Your task to perform on an android device: allow cookies in the chrome app Image 0: 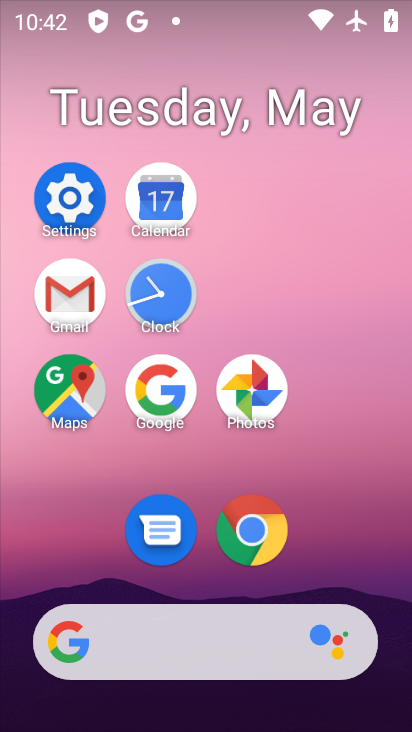
Step 0: click (260, 520)
Your task to perform on an android device: allow cookies in the chrome app Image 1: 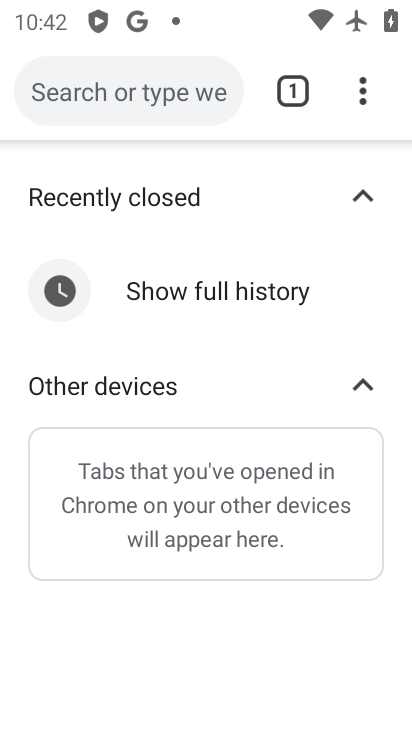
Step 1: click (379, 94)
Your task to perform on an android device: allow cookies in the chrome app Image 2: 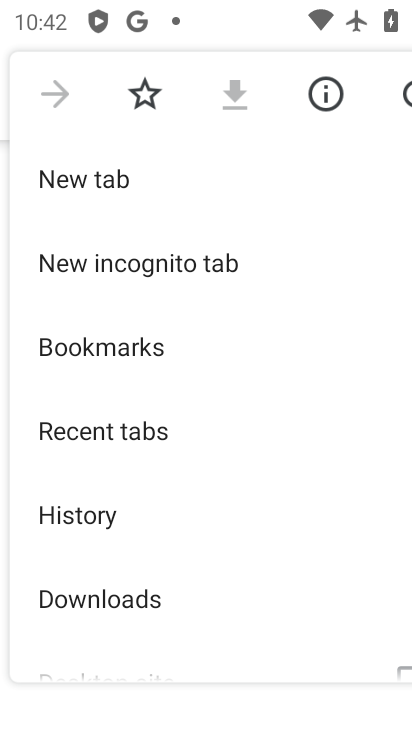
Step 2: drag from (263, 482) to (301, 125)
Your task to perform on an android device: allow cookies in the chrome app Image 3: 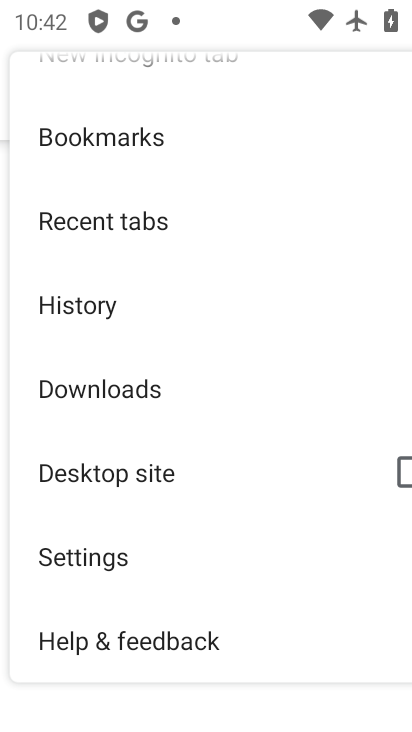
Step 3: click (122, 542)
Your task to perform on an android device: allow cookies in the chrome app Image 4: 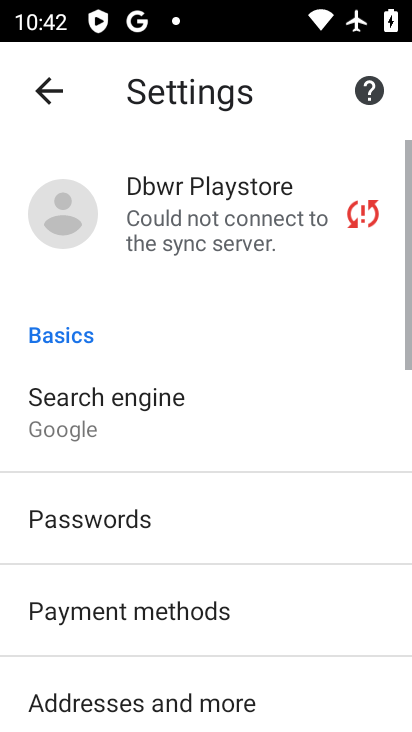
Step 4: drag from (122, 542) to (205, 175)
Your task to perform on an android device: allow cookies in the chrome app Image 5: 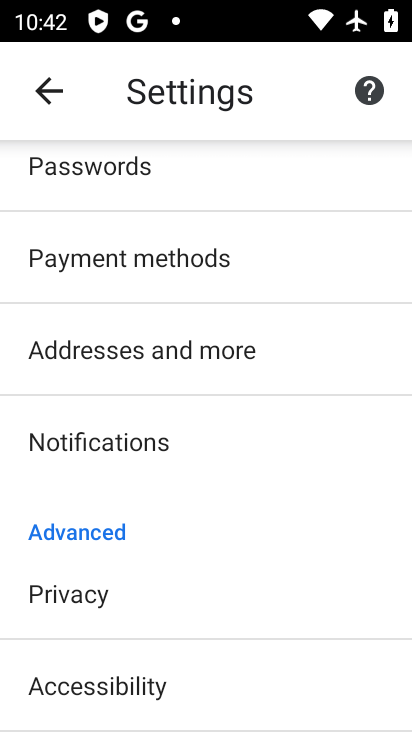
Step 5: drag from (136, 471) to (186, 192)
Your task to perform on an android device: allow cookies in the chrome app Image 6: 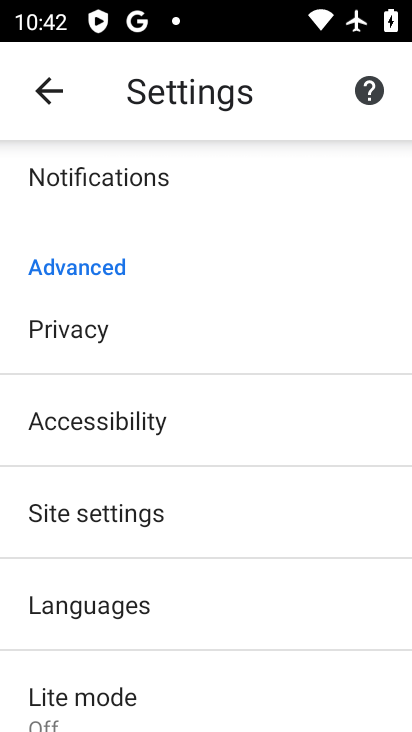
Step 6: click (213, 509)
Your task to perform on an android device: allow cookies in the chrome app Image 7: 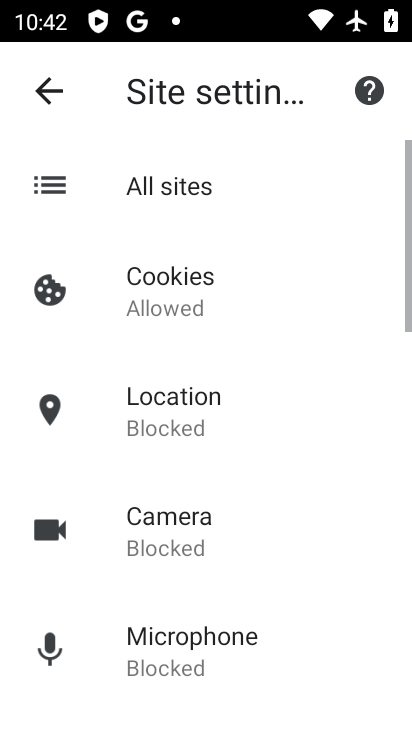
Step 7: click (199, 331)
Your task to perform on an android device: allow cookies in the chrome app Image 8: 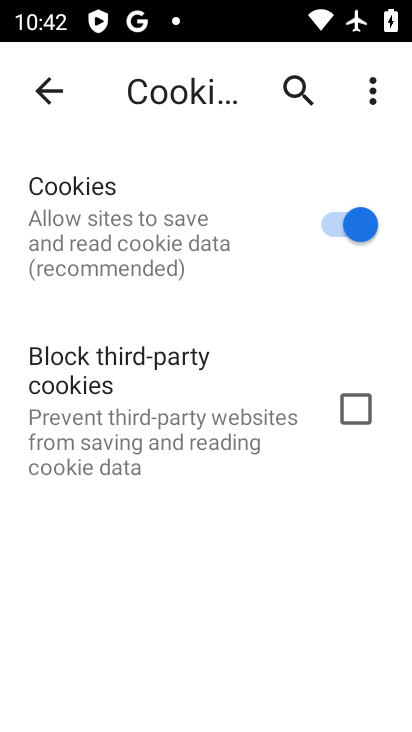
Step 8: task complete